Your task to perform on an android device: Go to CNN.com Image 0: 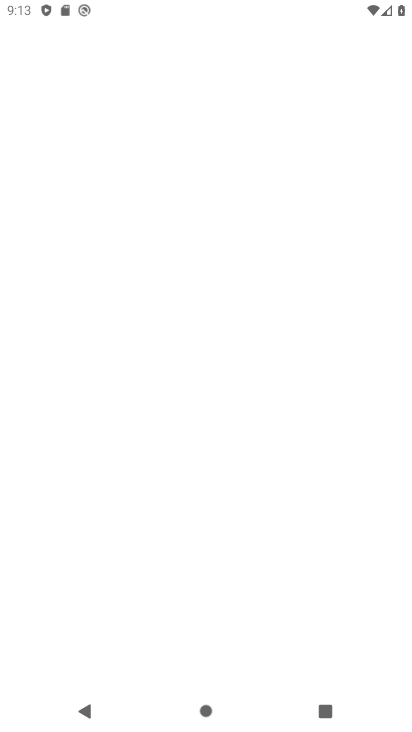
Step 0: press home button
Your task to perform on an android device: Go to CNN.com Image 1: 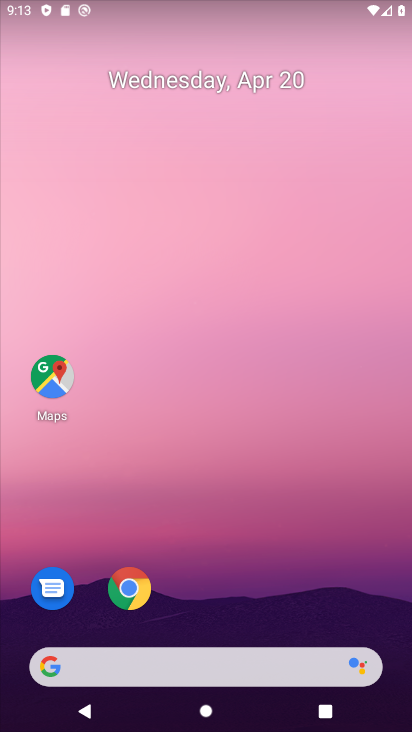
Step 1: click (133, 592)
Your task to perform on an android device: Go to CNN.com Image 2: 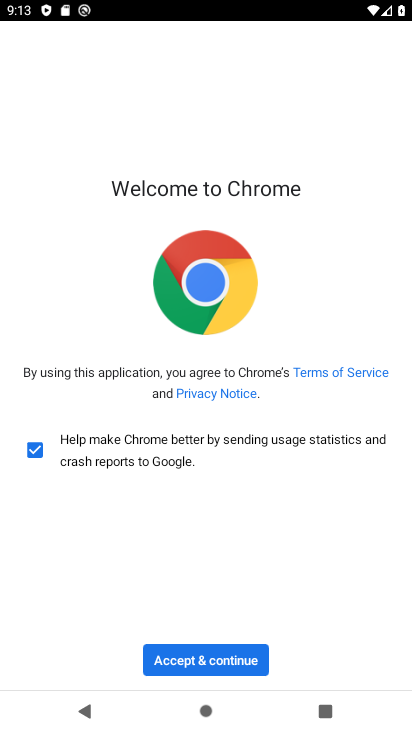
Step 2: click (172, 659)
Your task to perform on an android device: Go to CNN.com Image 3: 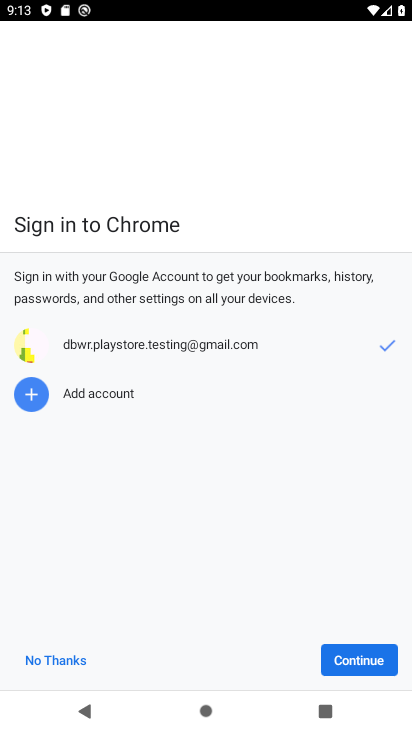
Step 3: click (339, 659)
Your task to perform on an android device: Go to CNN.com Image 4: 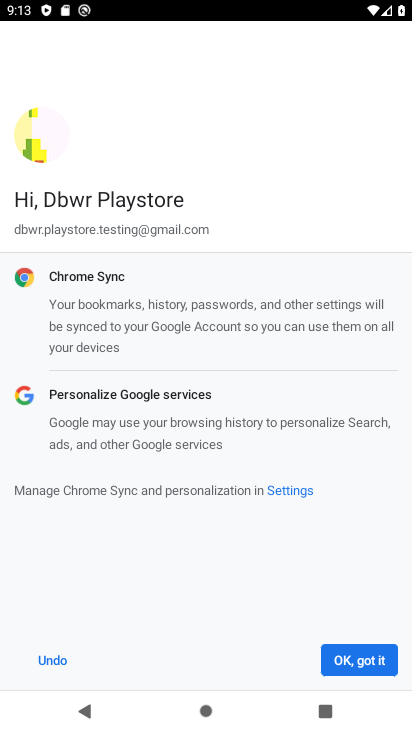
Step 4: click (339, 659)
Your task to perform on an android device: Go to CNN.com Image 5: 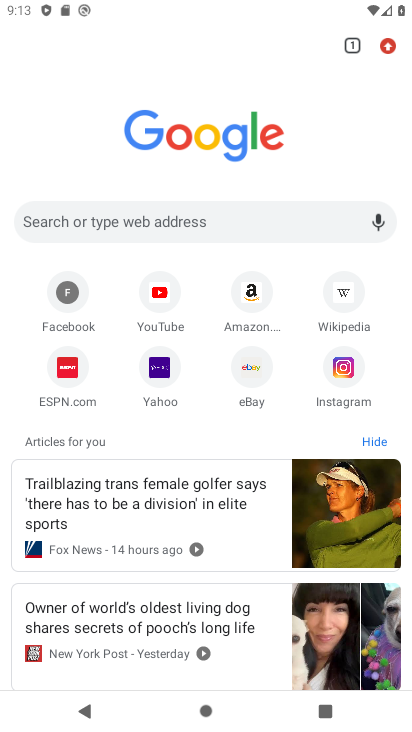
Step 5: click (189, 222)
Your task to perform on an android device: Go to CNN.com Image 6: 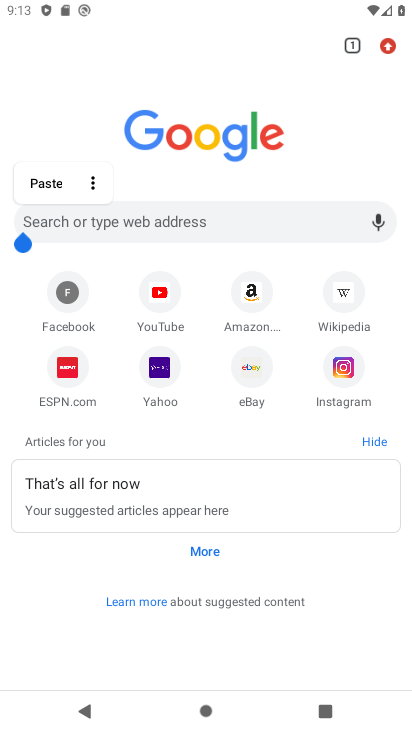
Step 6: click (147, 223)
Your task to perform on an android device: Go to CNN.com Image 7: 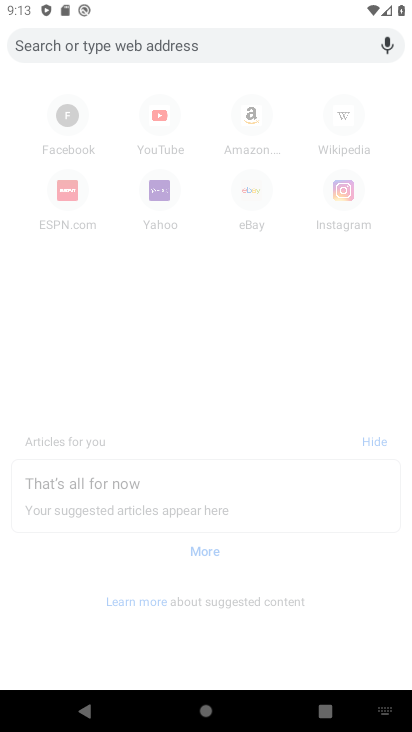
Step 7: type "cnn.com"
Your task to perform on an android device: Go to CNN.com Image 8: 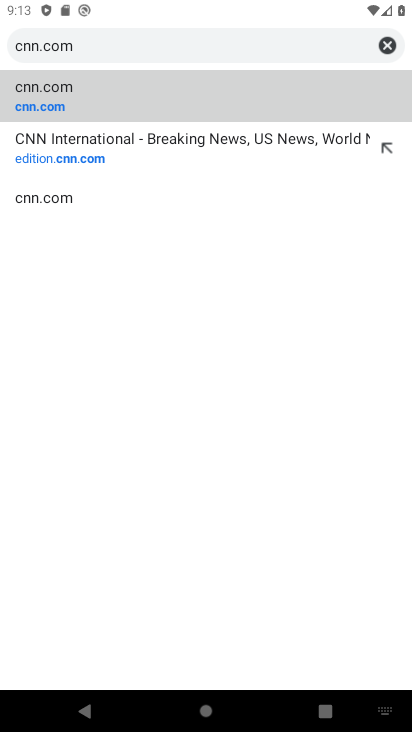
Step 8: click (113, 95)
Your task to perform on an android device: Go to CNN.com Image 9: 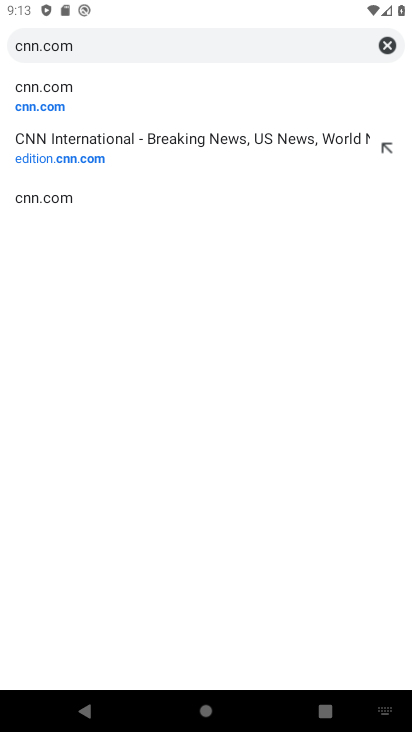
Step 9: click (62, 104)
Your task to perform on an android device: Go to CNN.com Image 10: 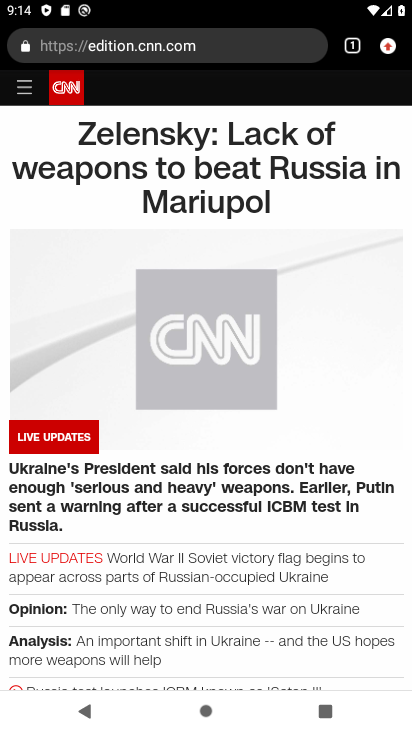
Step 10: task complete